Your task to perform on an android device: Is it going to rain today? Image 0: 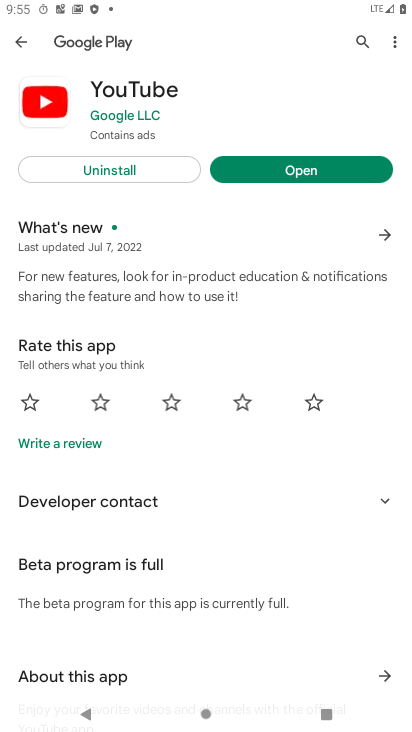
Step 0: press home button
Your task to perform on an android device: Is it going to rain today? Image 1: 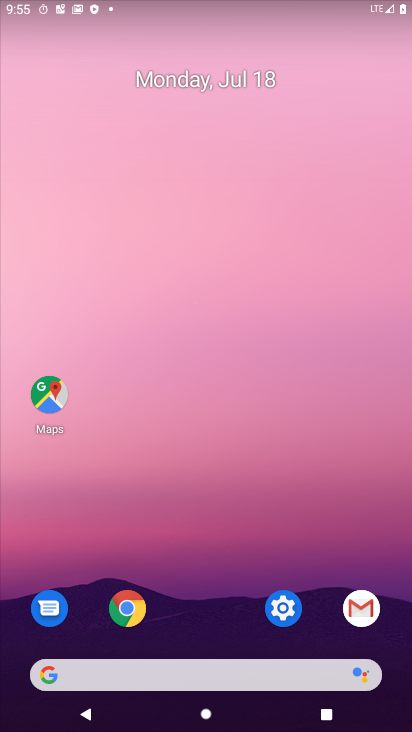
Step 1: click (188, 669)
Your task to perform on an android device: Is it going to rain today? Image 2: 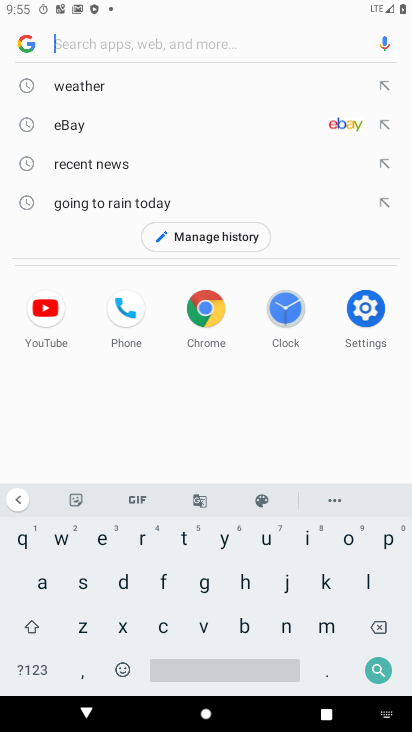
Step 2: click (134, 212)
Your task to perform on an android device: Is it going to rain today? Image 3: 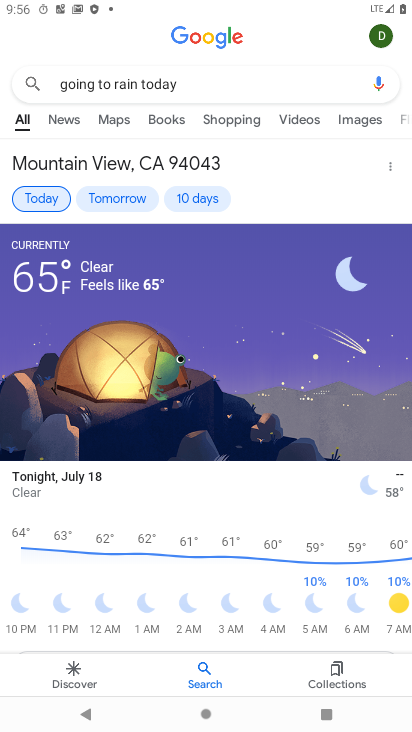
Step 3: task complete